Your task to perform on an android device: check out phone information Image 0: 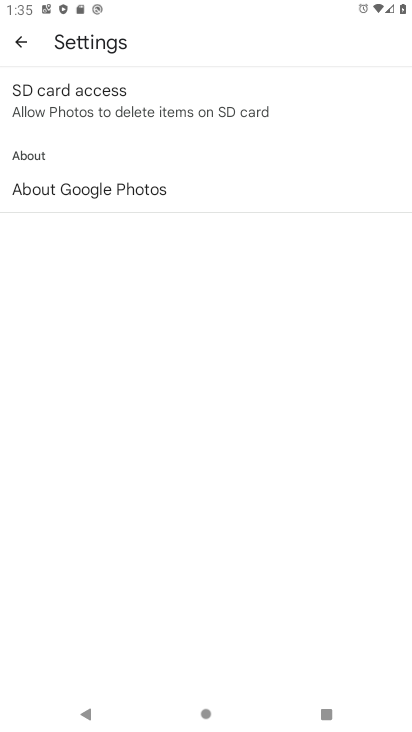
Step 0: press home button
Your task to perform on an android device: check out phone information Image 1: 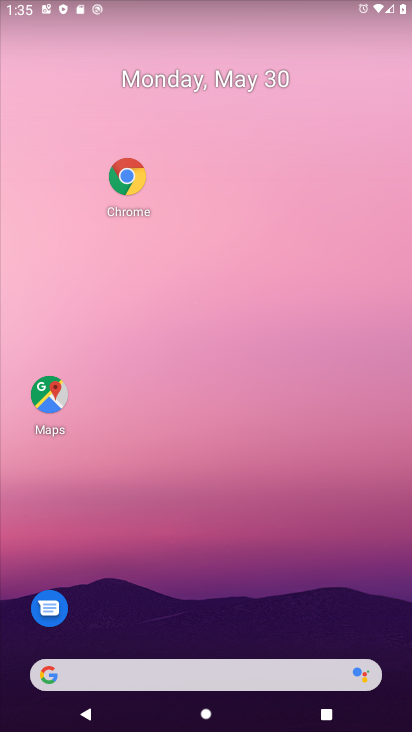
Step 1: drag from (242, 589) to (245, 13)
Your task to perform on an android device: check out phone information Image 2: 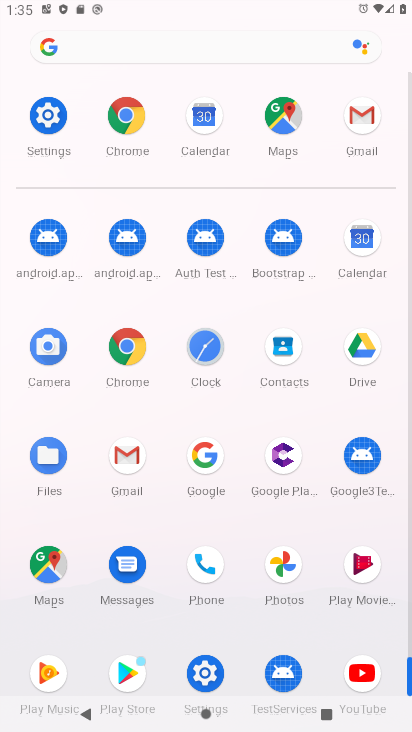
Step 2: click (52, 110)
Your task to perform on an android device: check out phone information Image 3: 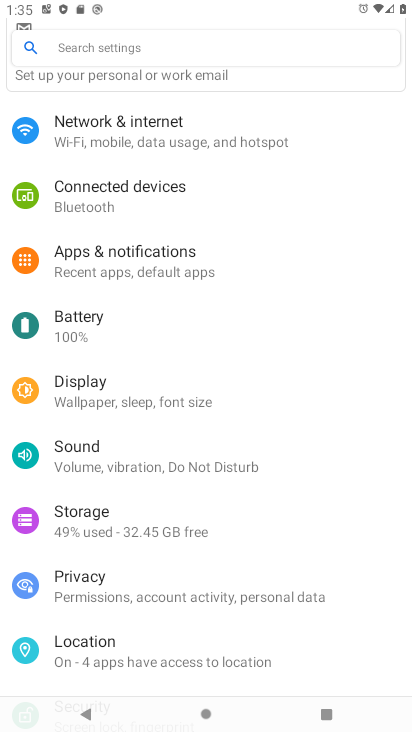
Step 3: drag from (286, 651) to (212, 125)
Your task to perform on an android device: check out phone information Image 4: 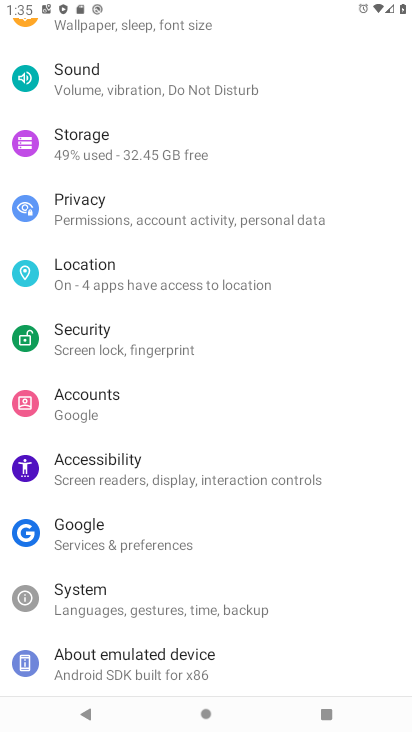
Step 4: click (131, 657)
Your task to perform on an android device: check out phone information Image 5: 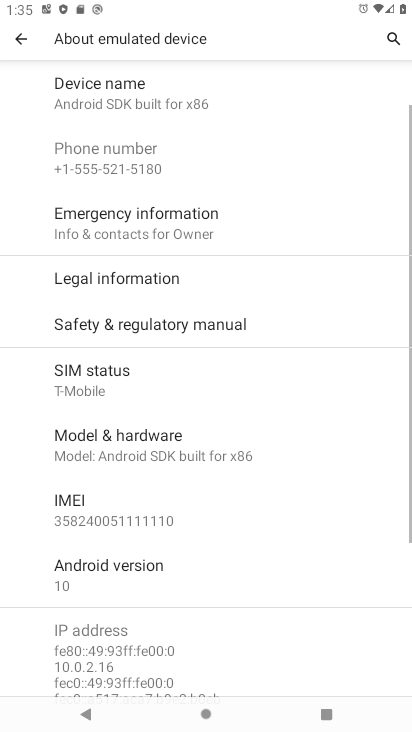
Step 5: task complete